Your task to perform on an android device: manage bookmarks in the chrome app Image 0: 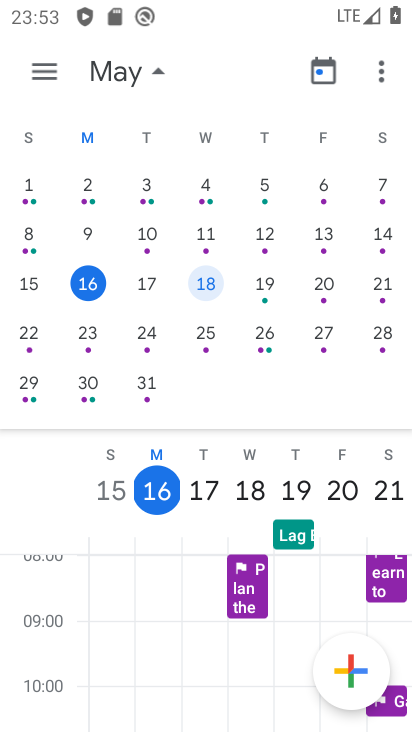
Step 0: press home button
Your task to perform on an android device: manage bookmarks in the chrome app Image 1: 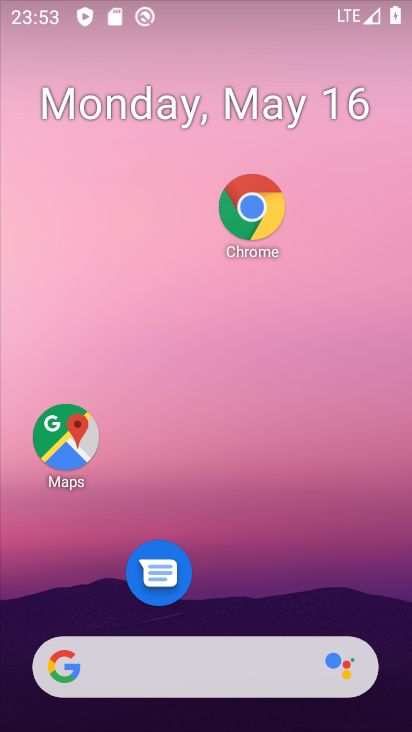
Step 1: drag from (237, 685) to (289, 97)
Your task to perform on an android device: manage bookmarks in the chrome app Image 2: 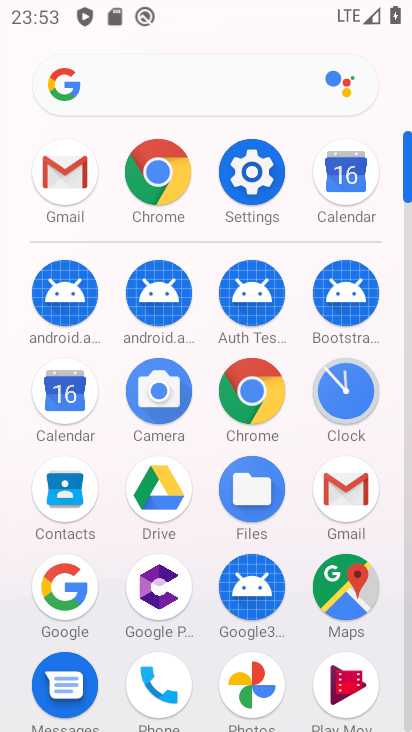
Step 2: click (232, 397)
Your task to perform on an android device: manage bookmarks in the chrome app Image 3: 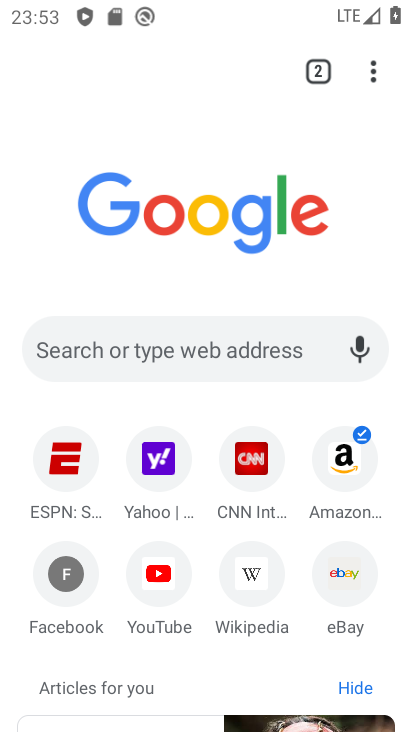
Step 3: click (369, 68)
Your task to perform on an android device: manage bookmarks in the chrome app Image 4: 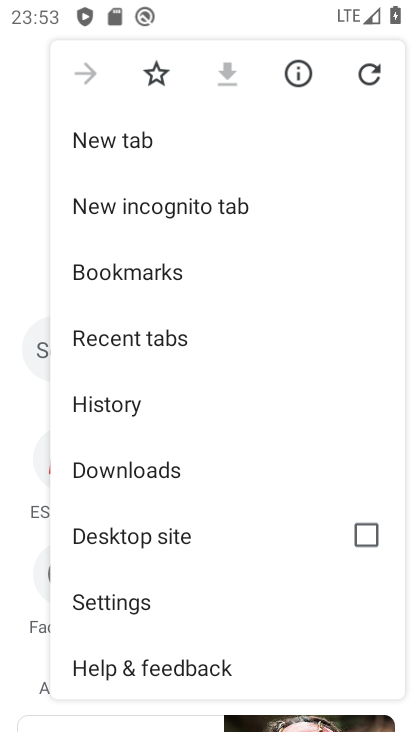
Step 4: click (181, 278)
Your task to perform on an android device: manage bookmarks in the chrome app Image 5: 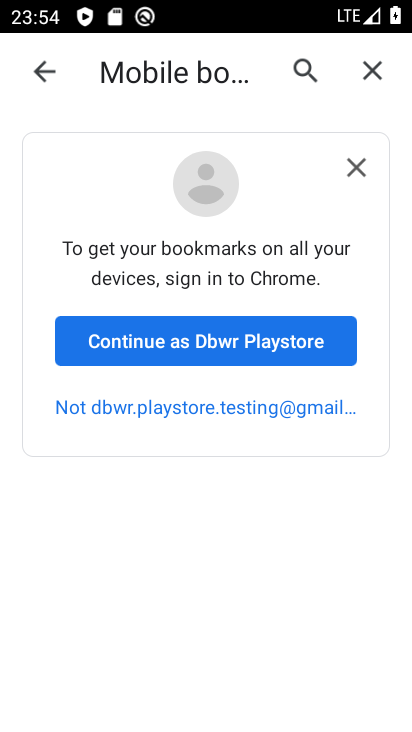
Step 5: task complete